Your task to perform on an android device: check google app version Image 0: 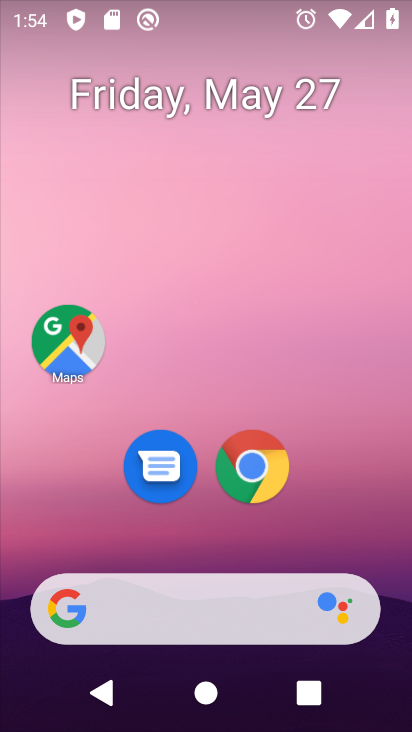
Step 0: drag from (211, 533) to (178, 135)
Your task to perform on an android device: check google app version Image 1: 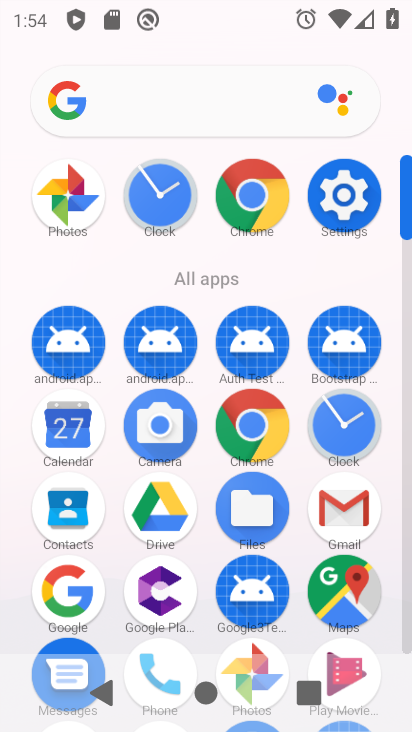
Step 1: click (87, 578)
Your task to perform on an android device: check google app version Image 2: 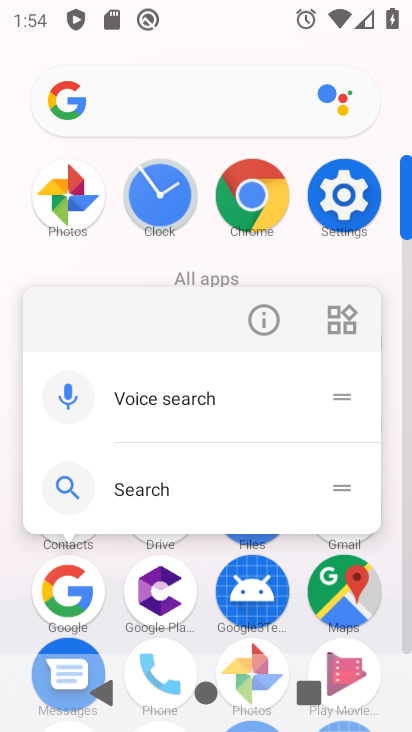
Step 2: click (265, 321)
Your task to perform on an android device: check google app version Image 3: 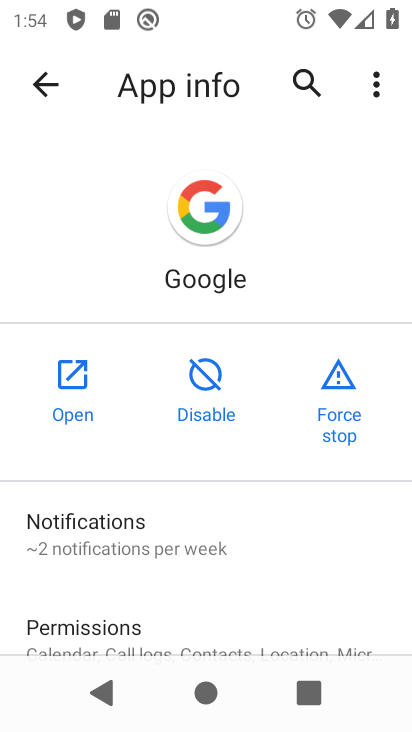
Step 3: drag from (217, 607) to (228, 168)
Your task to perform on an android device: check google app version Image 4: 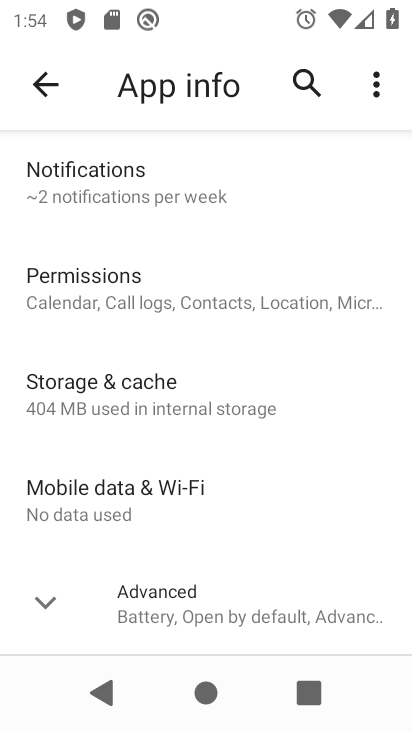
Step 4: click (214, 612)
Your task to perform on an android device: check google app version Image 5: 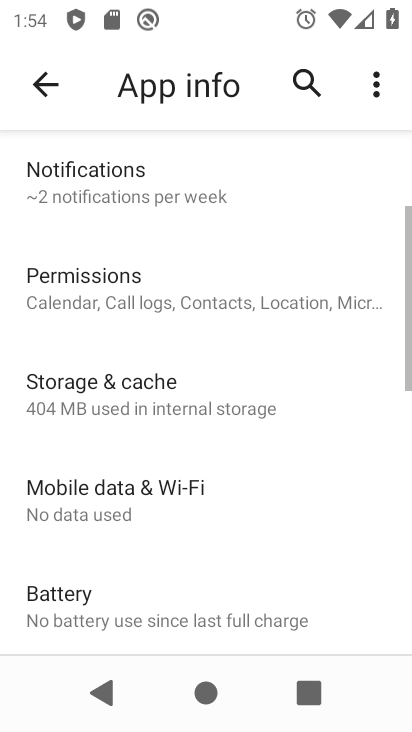
Step 5: task complete